Your task to perform on an android device: turn on javascript in the chrome app Image 0: 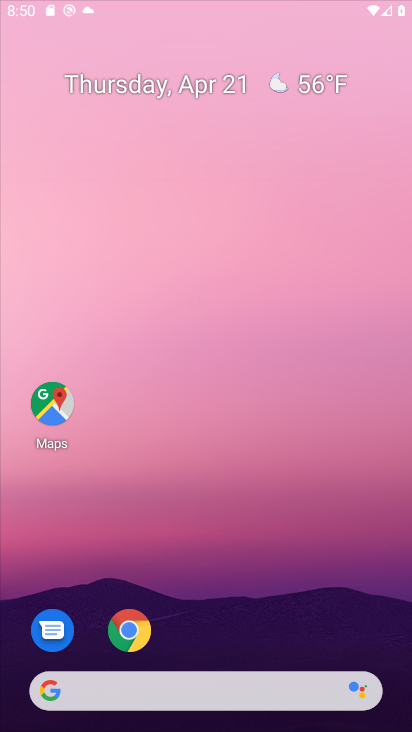
Step 0: click (241, 325)
Your task to perform on an android device: turn on javascript in the chrome app Image 1: 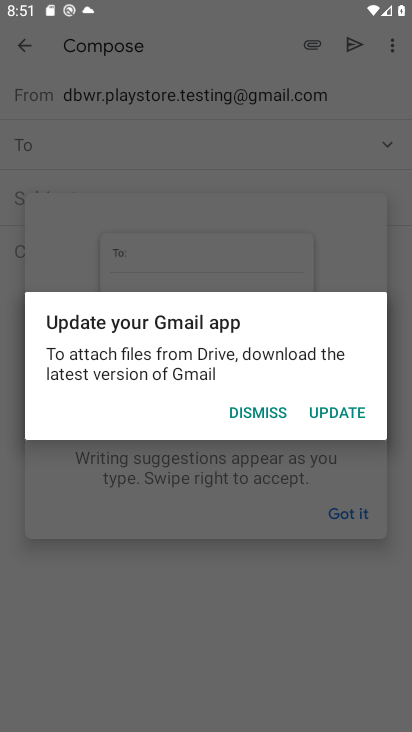
Step 1: press home button
Your task to perform on an android device: turn on javascript in the chrome app Image 2: 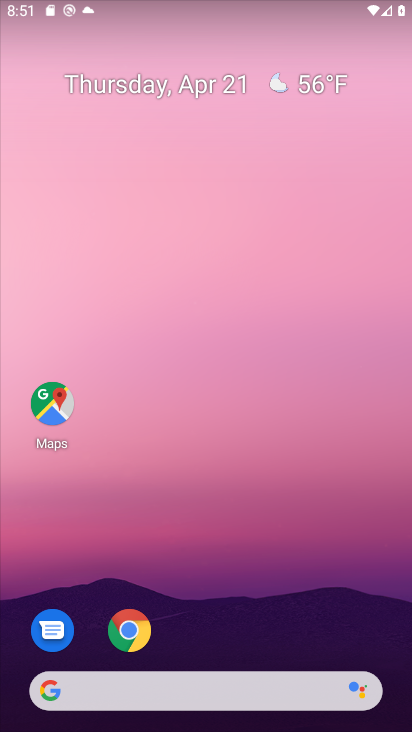
Step 2: drag from (242, 638) to (260, 41)
Your task to perform on an android device: turn on javascript in the chrome app Image 3: 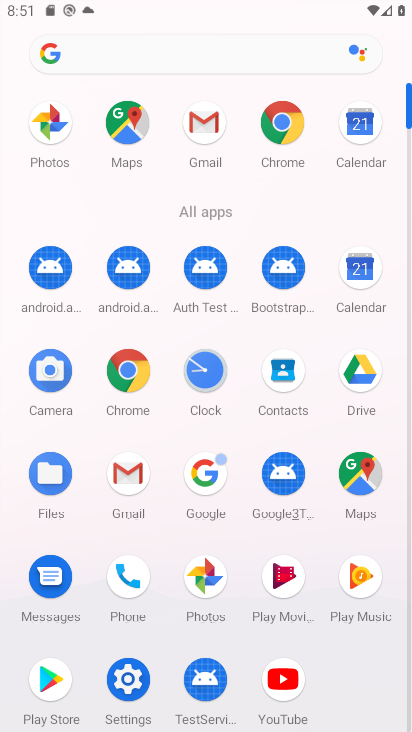
Step 3: click (123, 385)
Your task to perform on an android device: turn on javascript in the chrome app Image 4: 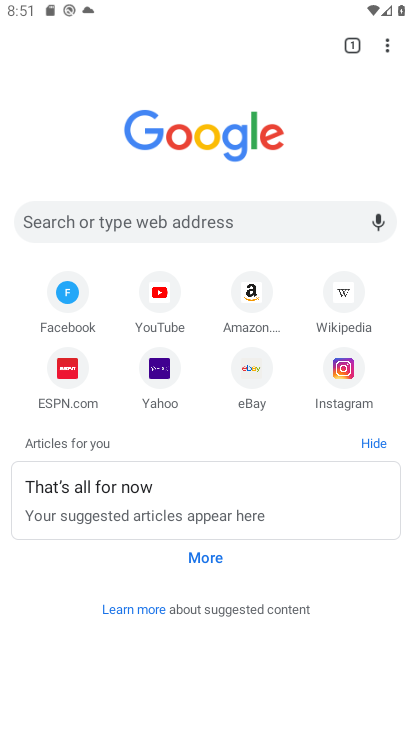
Step 4: click (388, 53)
Your task to perform on an android device: turn on javascript in the chrome app Image 5: 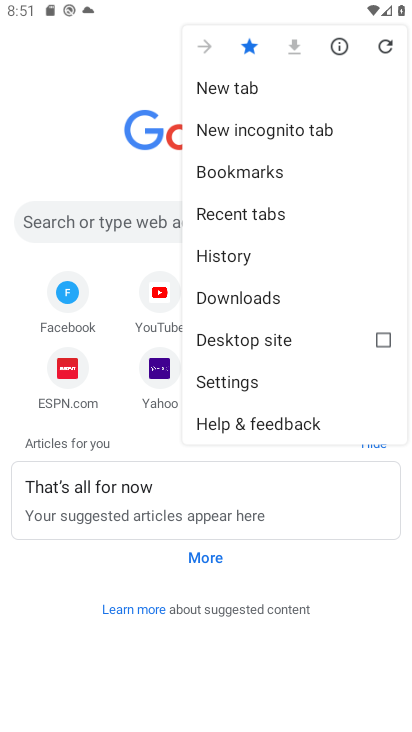
Step 5: click (237, 386)
Your task to perform on an android device: turn on javascript in the chrome app Image 6: 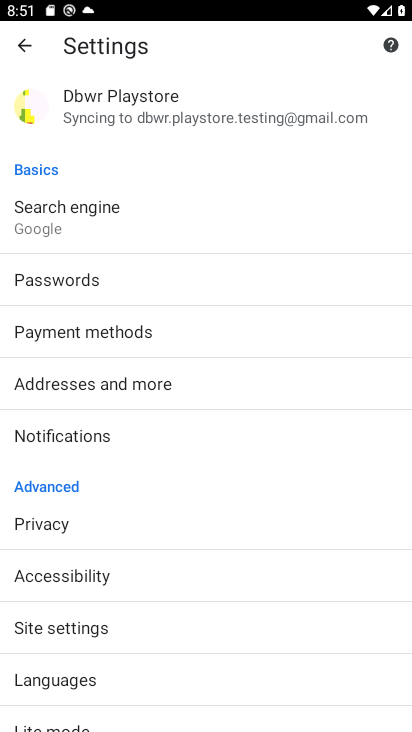
Step 6: click (55, 630)
Your task to perform on an android device: turn on javascript in the chrome app Image 7: 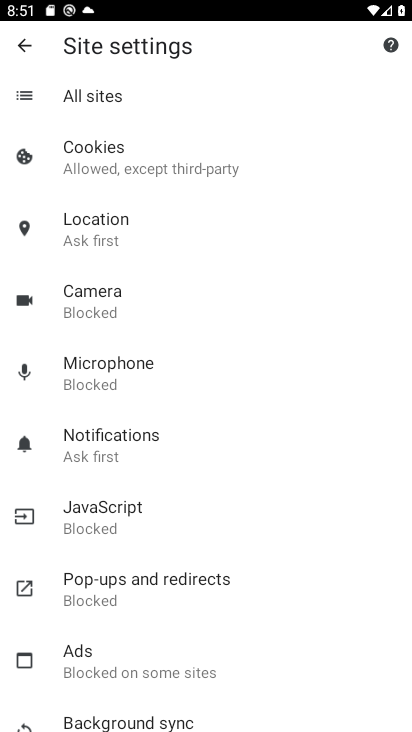
Step 7: click (130, 527)
Your task to perform on an android device: turn on javascript in the chrome app Image 8: 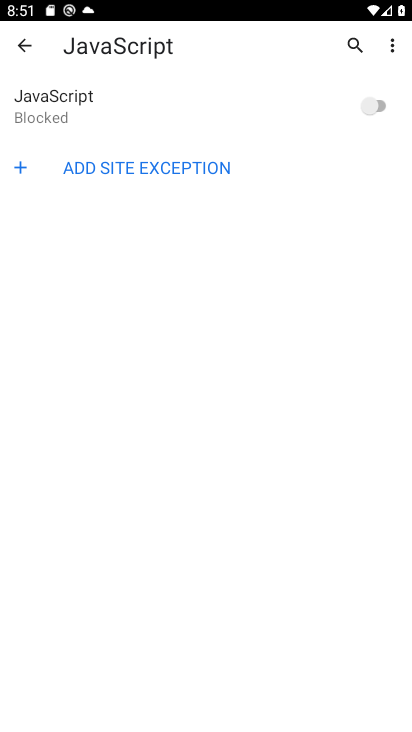
Step 8: click (379, 99)
Your task to perform on an android device: turn on javascript in the chrome app Image 9: 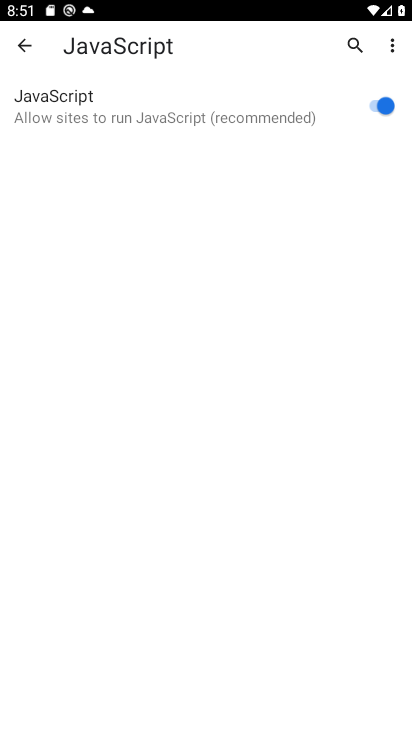
Step 9: task complete